Your task to perform on an android device: Go to notification settings Image 0: 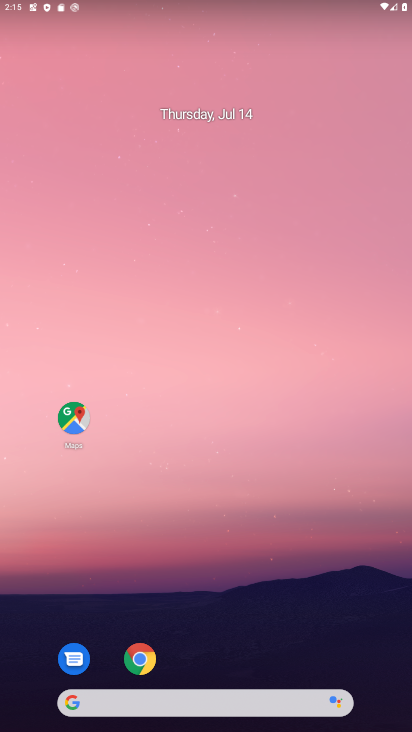
Step 0: drag from (246, 599) to (182, 95)
Your task to perform on an android device: Go to notification settings Image 1: 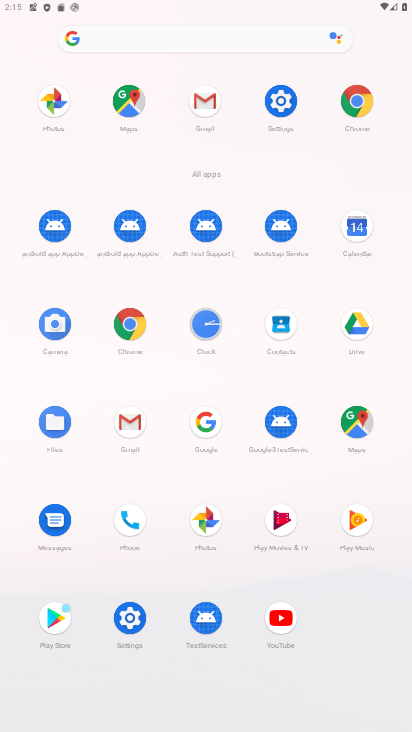
Step 1: click (280, 98)
Your task to perform on an android device: Go to notification settings Image 2: 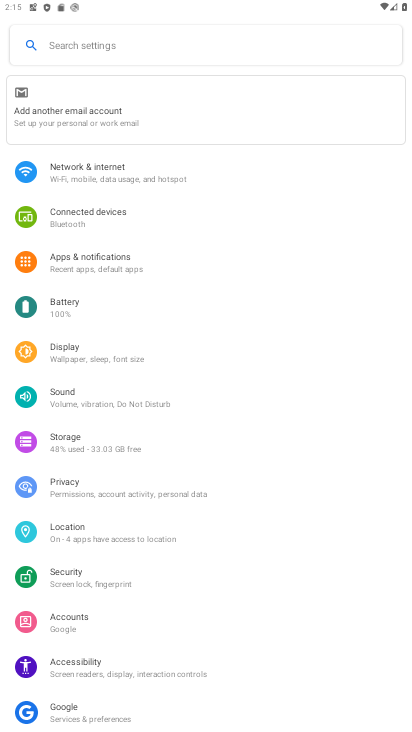
Step 2: click (105, 267)
Your task to perform on an android device: Go to notification settings Image 3: 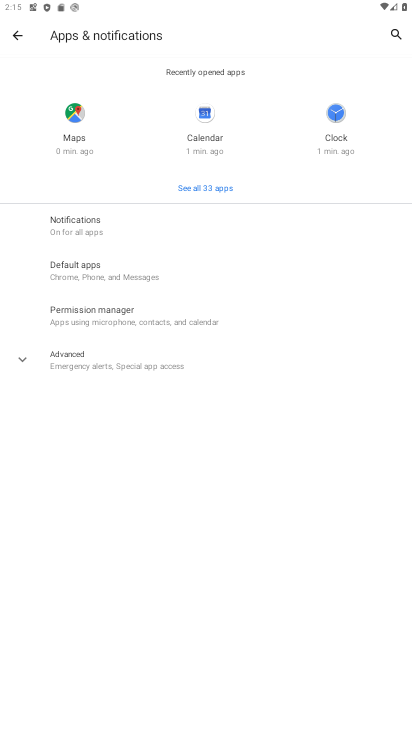
Step 3: click (68, 225)
Your task to perform on an android device: Go to notification settings Image 4: 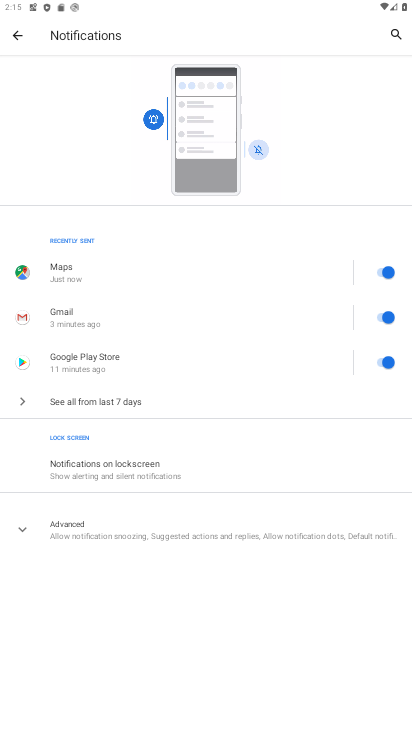
Step 4: click (94, 538)
Your task to perform on an android device: Go to notification settings Image 5: 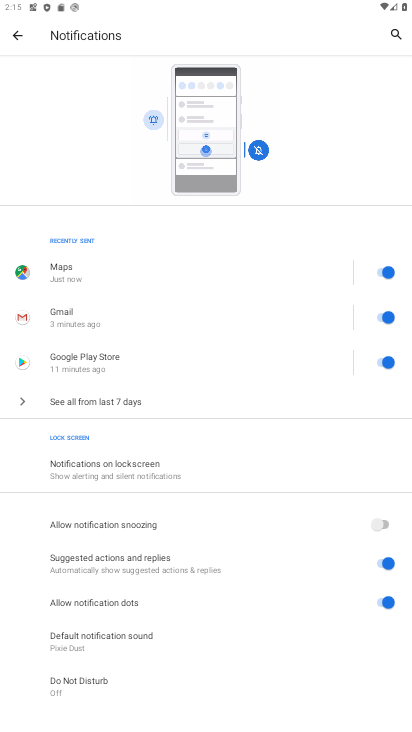
Step 5: task complete